Your task to perform on an android device: Open sound settings Image 0: 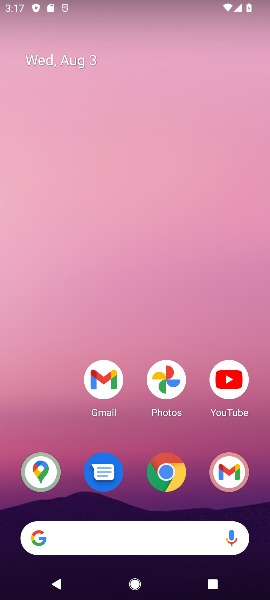
Step 0: drag from (65, 424) to (98, 80)
Your task to perform on an android device: Open sound settings Image 1: 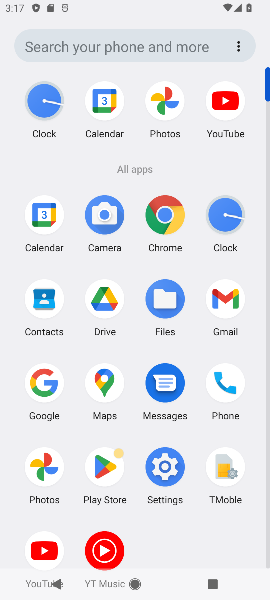
Step 1: click (169, 471)
Your task to perform on an android device: Open sound settings Image 2: 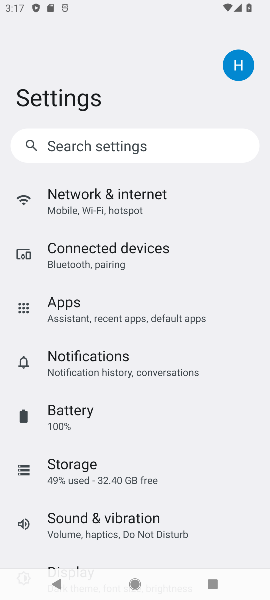
Step 2: click (113, 522)
Your task to perform on an android device: Open sound settings Image 3: 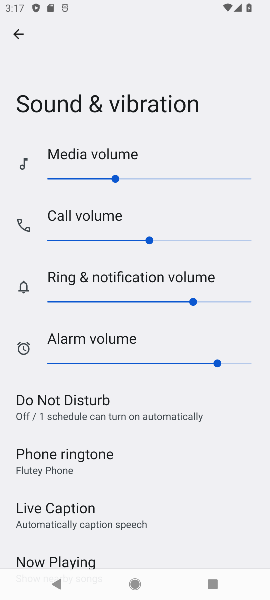
Step 3: task complete